Your task to perform on an android device: check android version Image 0: 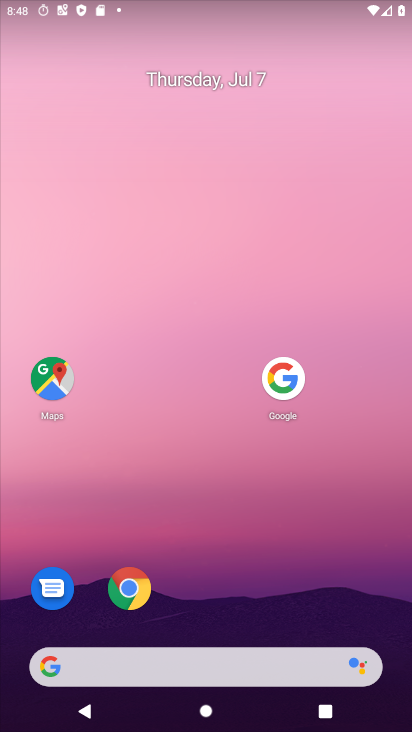
Step 0: drag from (175, 681) to (280, 101)
Your task to perform on an android device: check android version Image 1: 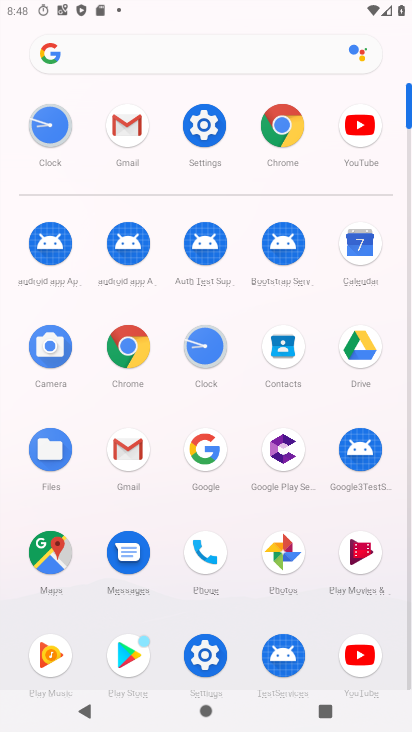
Step 1: click (208, 117)
Your task to perform on an android device: check android version Image 2: 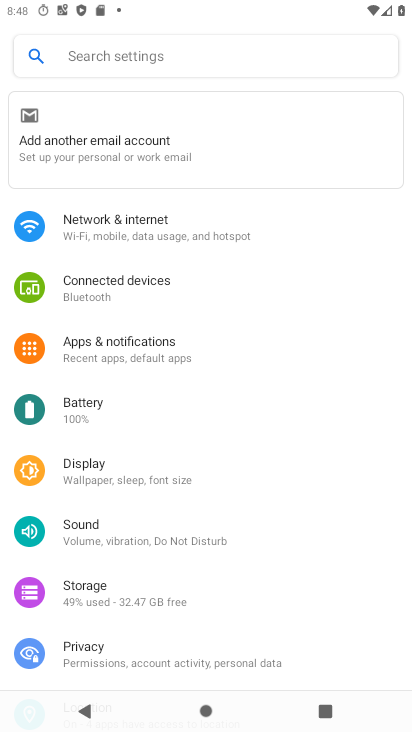
Step 2: drag from (256, 636) to (374, 135)
Your task to perform on an android device: check android version Image 3: 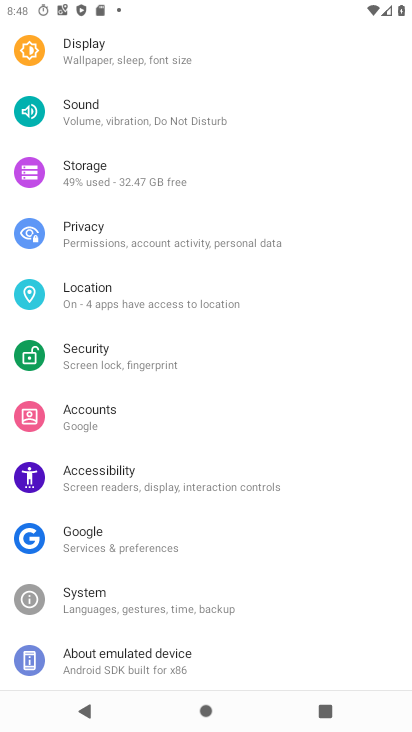
Step 3: click (173, 657)
Your task to perform on an android device: check android version Image 4: 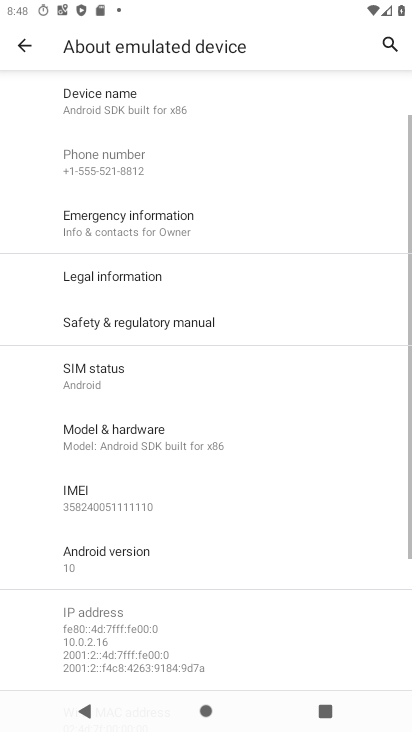
Step 4: click (98, 547)
Your task to perform on an android device: check android version Image 5: 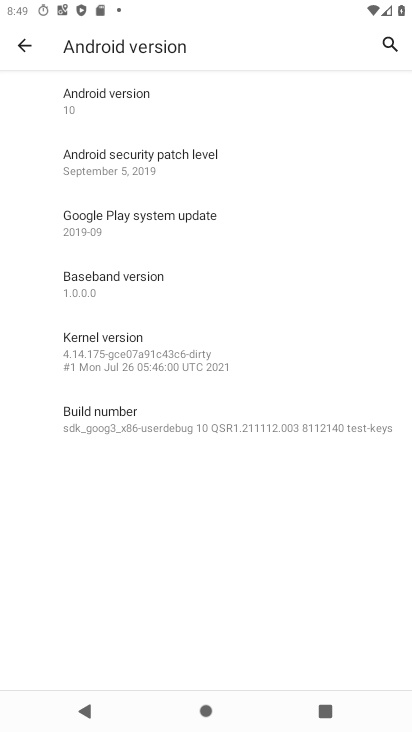
Step 5: task complete